Your task to perform on an android device: change the clock display to show seconds Image 0: 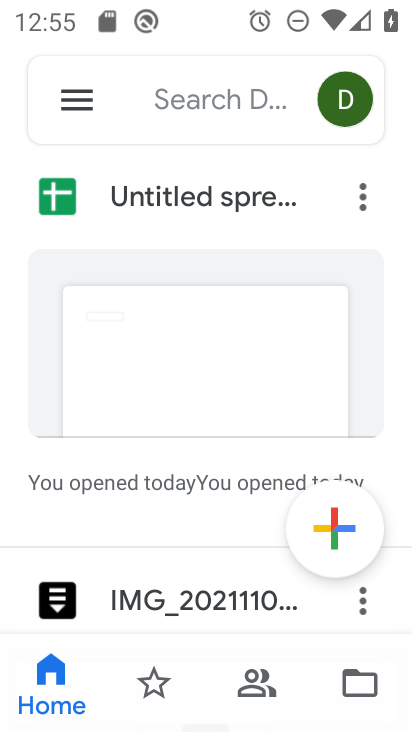
Step 0: press home button
Your task to perform on an android device: change the clock display to show seconds Image 1: 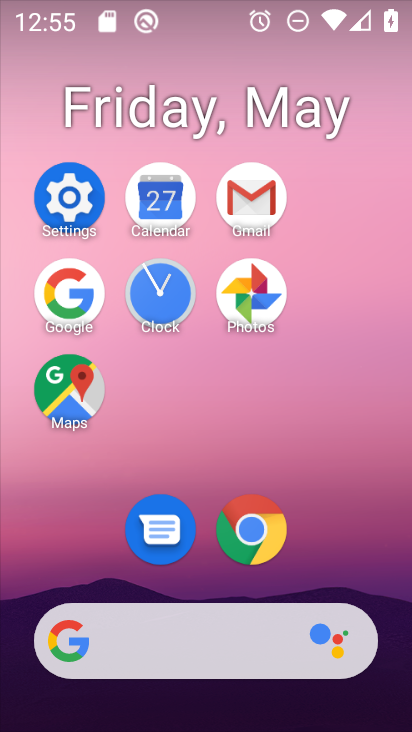
Step 1: click (148, 283)
Your task to perform on an android device: change the clock display to show seconds Image 2: 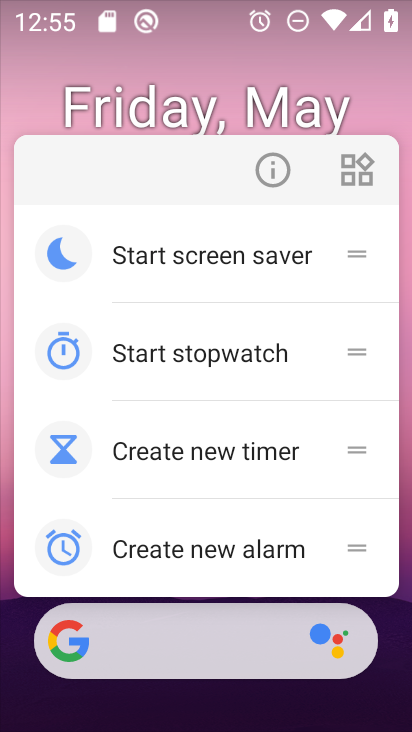
Step 2: click (383, 87)
Your task to perform on an android device: change the clock display to show seconds Image 3: 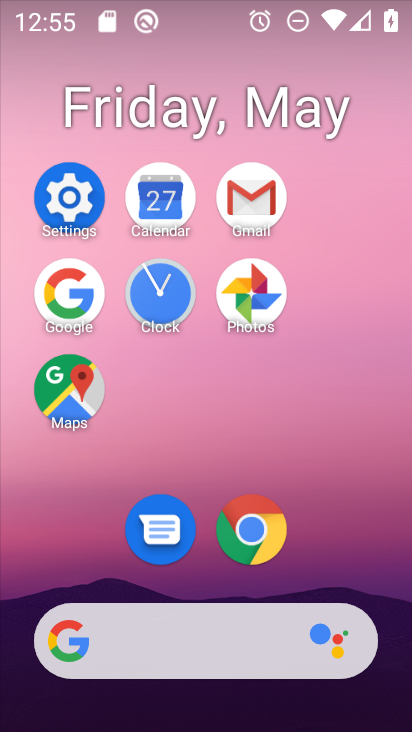
Step 3: click (165, 318)
Your task to perform on an android device: change the clock display to show seconds Image 4: 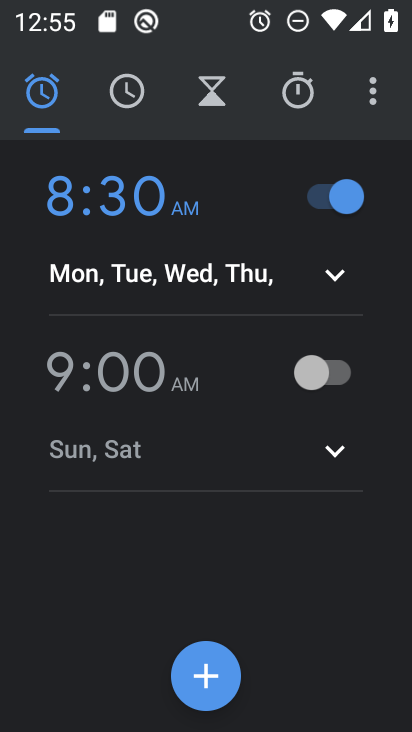
Step 4: click (384, 106)
Your task to perform on an android device: change the clock display to show seconds Image 5: 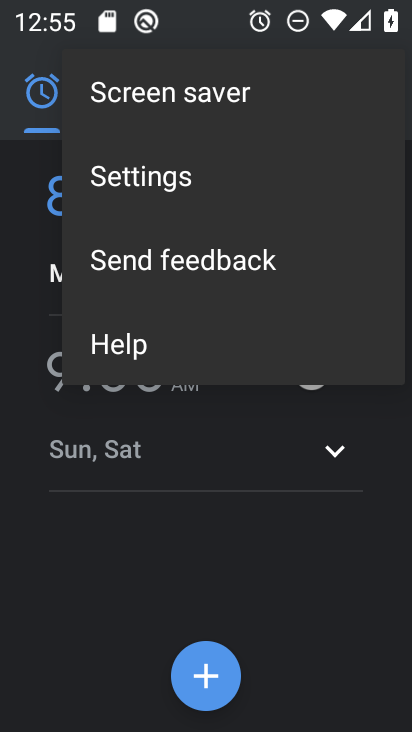
Step 5: click (200, 176)
Your task to perform on an android device: change the clock display to show seconds Image 6: 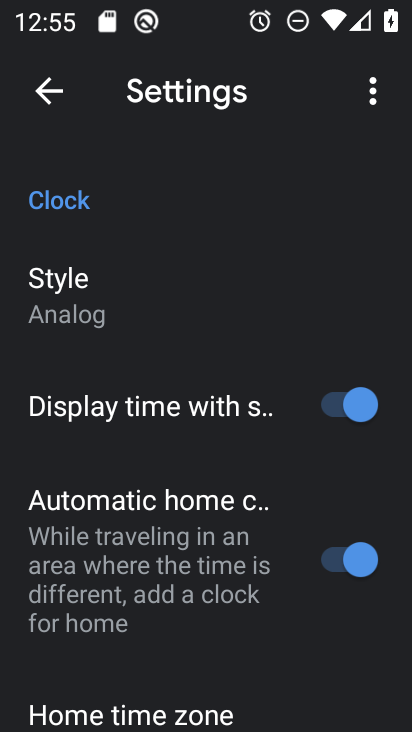
Step 6: task complete